Your task to perform on an android device: show emergency info Image 0: 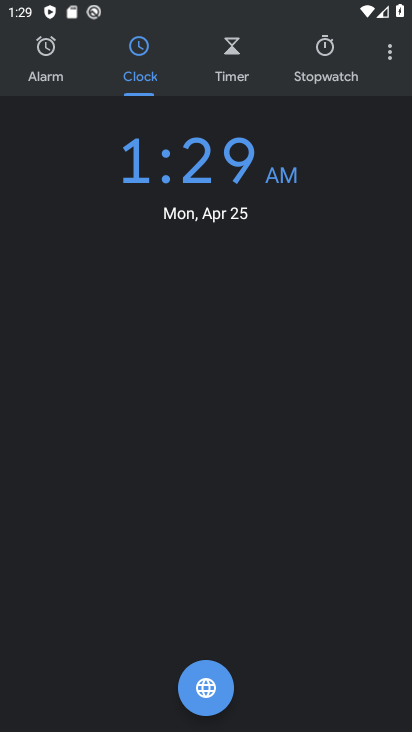
Step 0: press back button
Your task to perform on an android device: show emergency info Image 1: 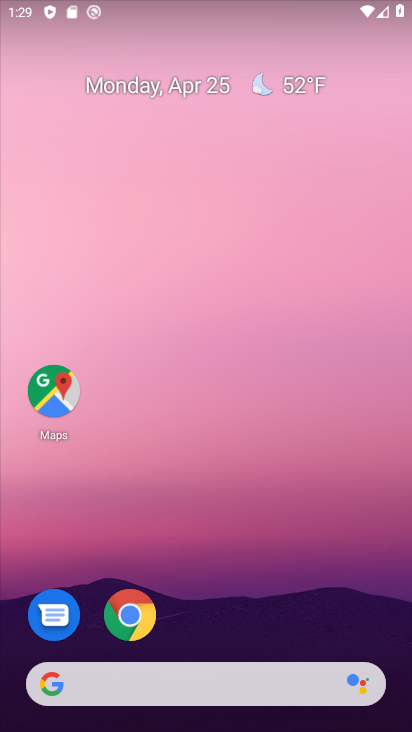
Step 1: drag from (213, 552) to (199, 12)
Your task to perform on an android device: show emergency info Image 2: 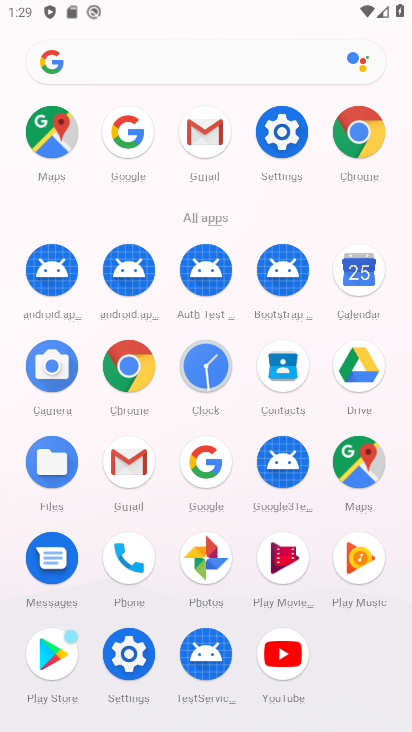
Step 2: click (283, 131)
Your task to perform on an android device: show emergency info Image 3: 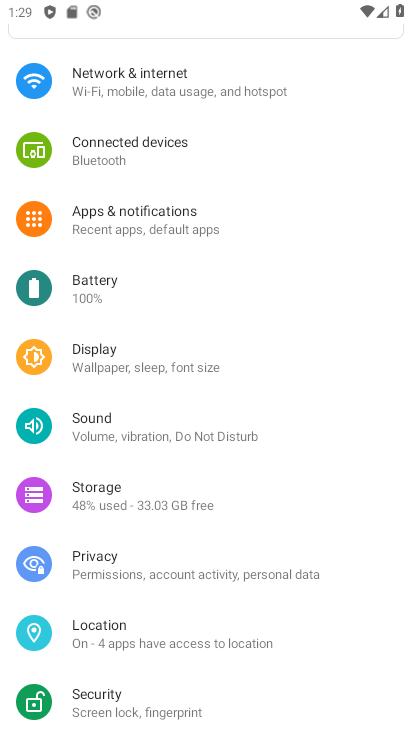
Step 3: drag from (145, 400) to (140, 337)
Your task to perform on an android device: show emergency info Image 4: 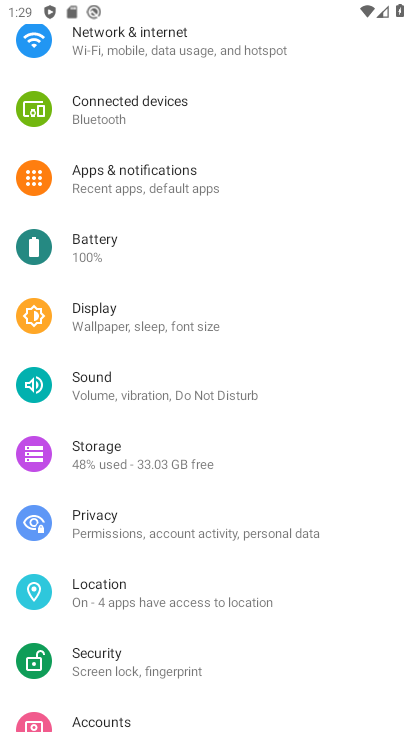
Step 4: drag from (150, 381) to (170, 328)
Your task to perform on an android device: show emergency info Image 5: 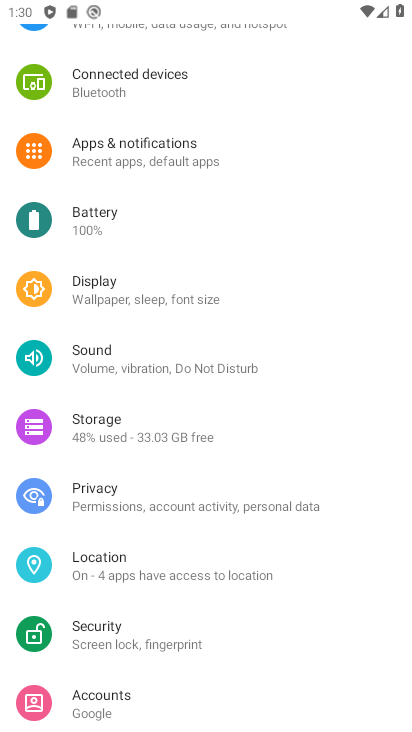
Step 5: drag from (135, 463) to (159, 404)
Your task to perform on an android device: show emergency info Image 6: 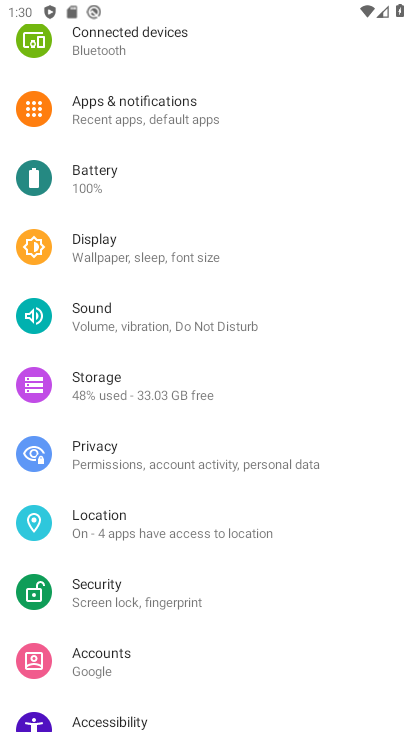
Step 6: drag from (121, 492) to (154, 431)
Your task to perform on an android device: show emergency info Image 7: 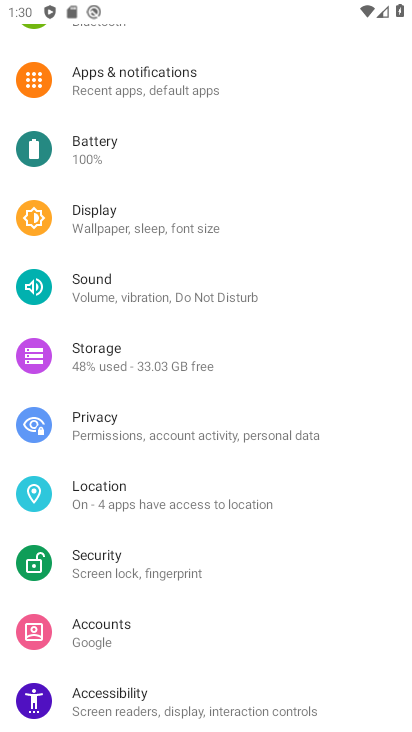
Step 7: drag from (115, 532) to (170, 467)
Your task to perform on an android device: show emergency info Image 8: 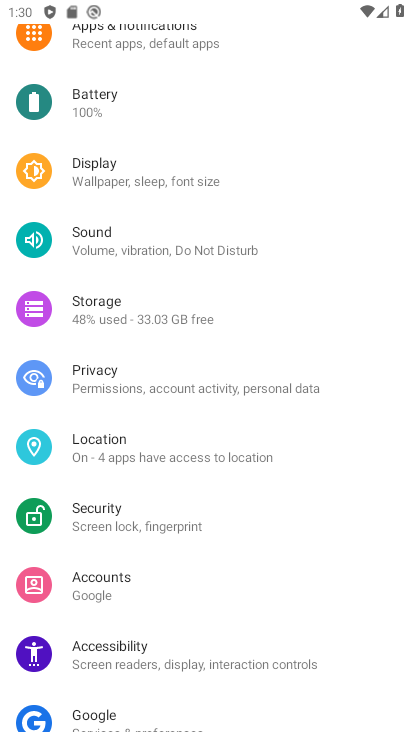
Step 8: drag from (132, 610) to (150, 533)
Your task to perform on an android device: show emergency info Image 9: 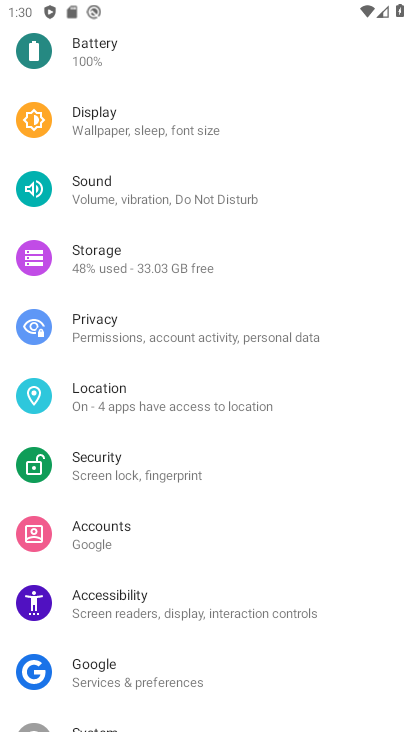
Step 9: drag from (146, 641) to (190, 563)
Your task to perform on an android device: show emergency info Image 10: 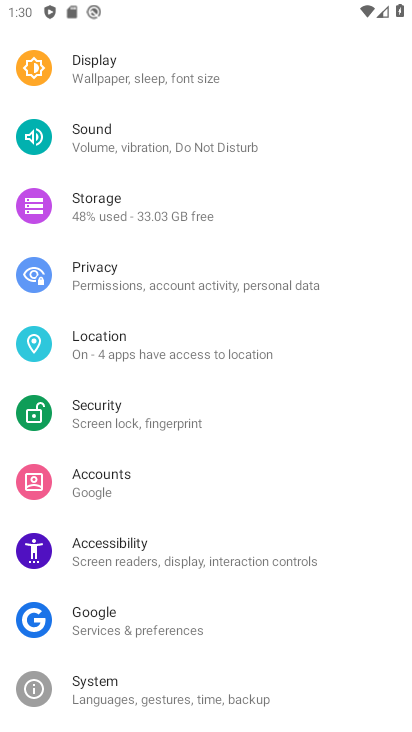
Step 10: click (185, 574)
Your task to perform on an android device: show emergency info Image 11: 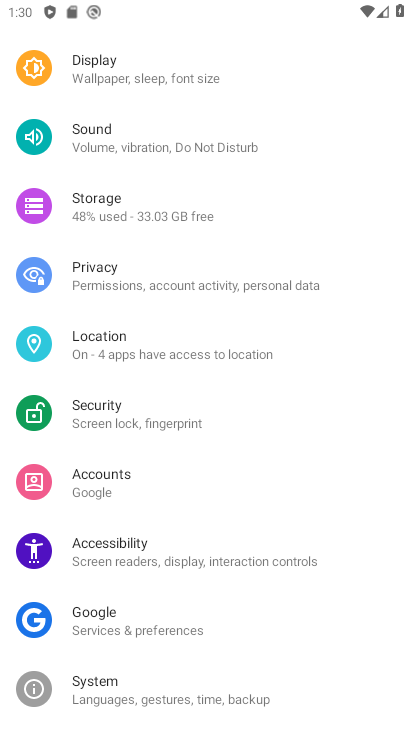
Step 11: drag from (112, 663) to (169, 556)
Your task to perform on an android device: show emergency info Image 12: 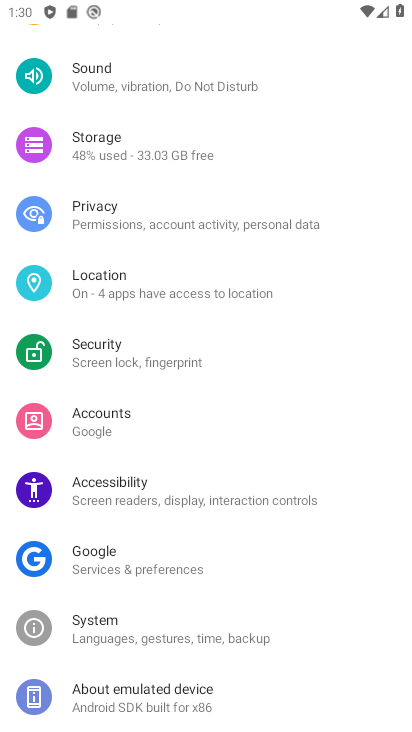
Step 12: click (110, 687)
Your task to perform on an android device: show emergency info Image 13: 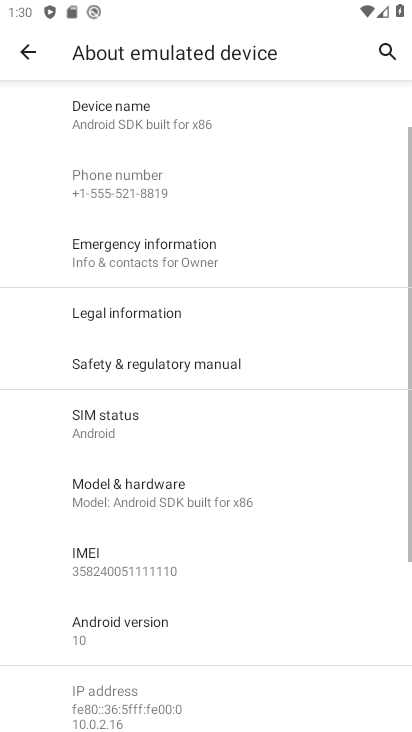
Step 13: click (134, 250)
Your task to perform on an android device: show emergency info Image 14: 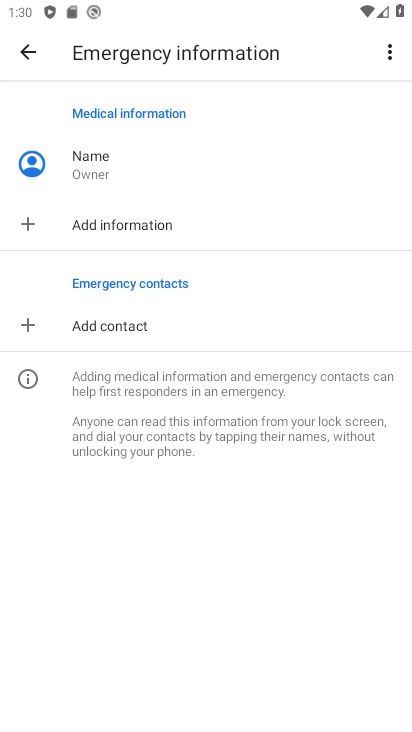
Step 14: task complete